Your task to perform on an android device: turn off airplane mode Image 0: 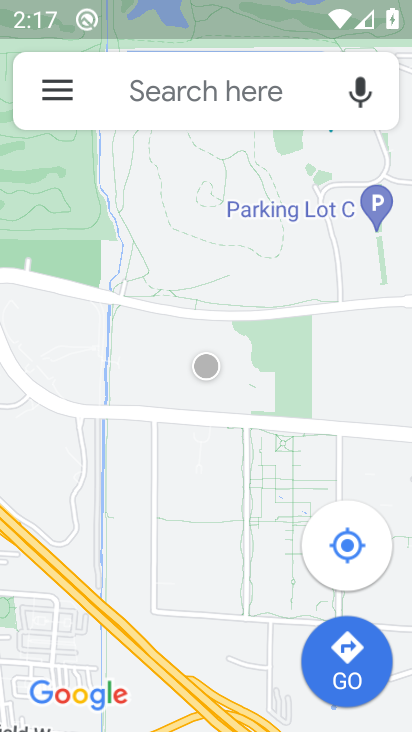
Step 0: press home button
Your task to perform on an android device: turn off airplane mode Image 1: 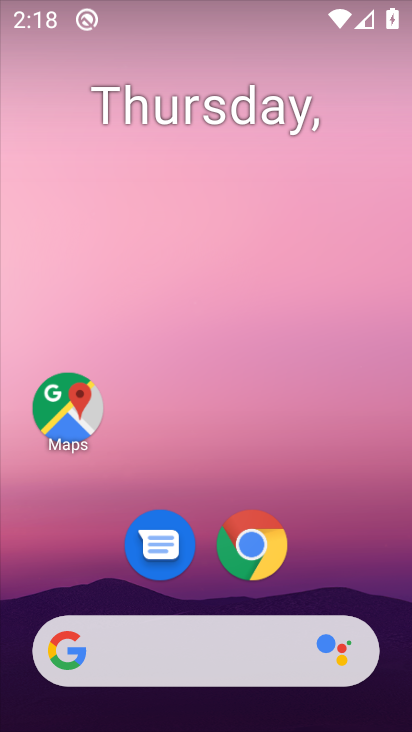
Step 1: drag from (199, 616) to (317, 164)
Your task to perform on an android device: turn off airplane mode Image 2: 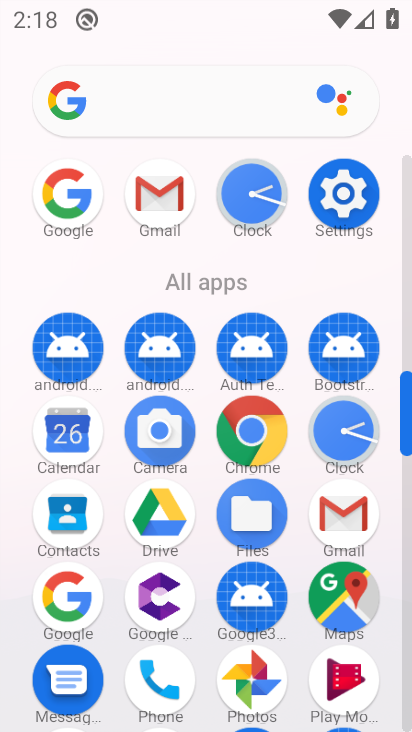
Step 2: click (348, 191)
Your task to perform on an android device: turn off airplane mode Image 3: 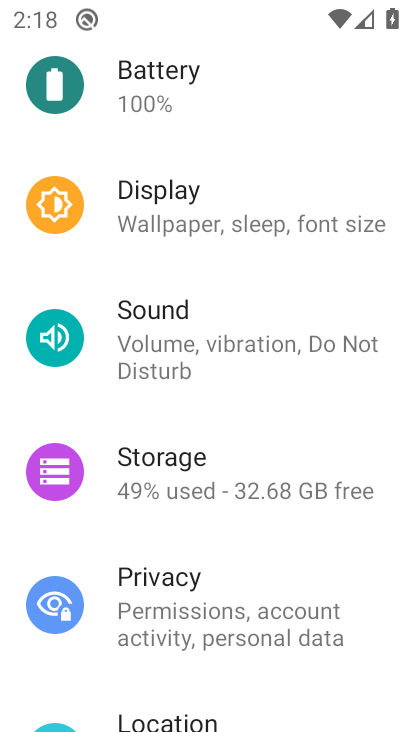
Step 3: drag from (231, 135) to (221, 583)
Your task to perform on an android device: turn off airplane mode Image 4: 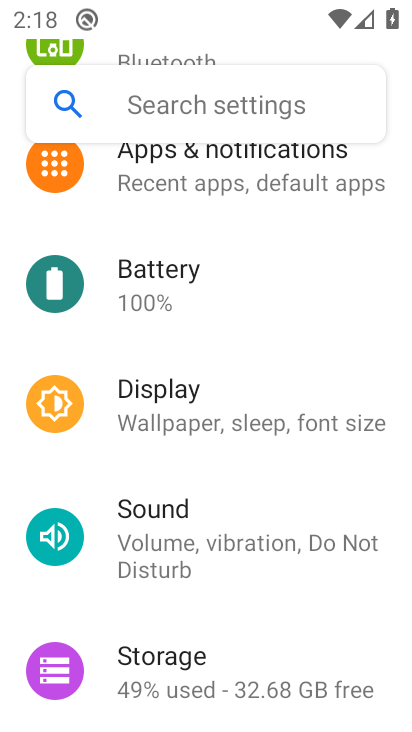
Step 4: drag from (290, 159) to (230, 601)
Your task to perform on an android device: turn off airplane mode Image 5: 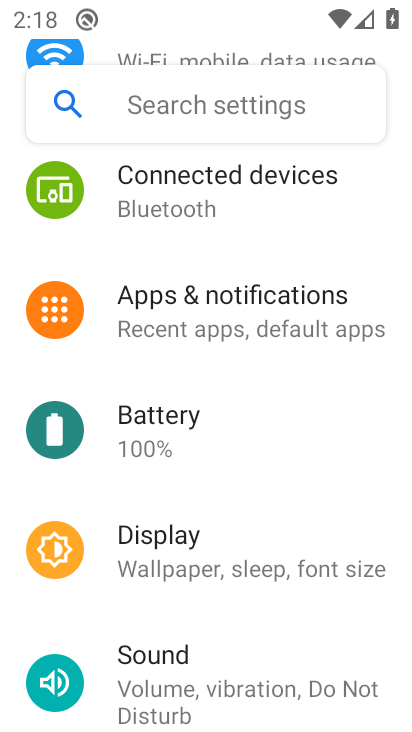
Step 5: drag from (271, 164) to (238, 480)
Your task to perform on an android device: turn off airplane mode Image 6: 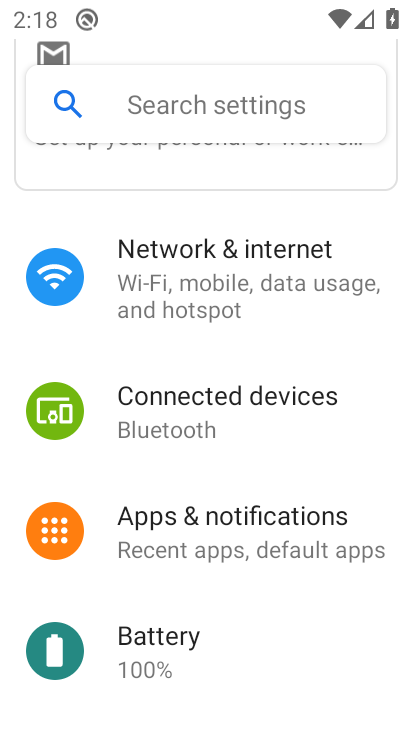
Step 6: click (233, 274)
Your task to perform on an android device: turn off airplane mode Image 7: 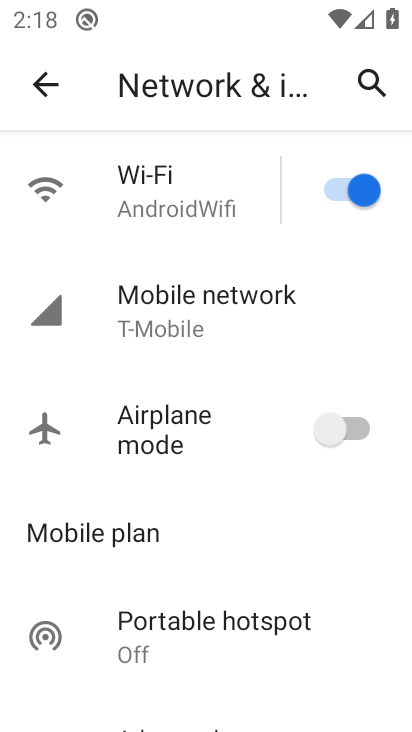
Step 7: task complete